Your task to perform on an android device: change your default location settings in chrome Image 0: 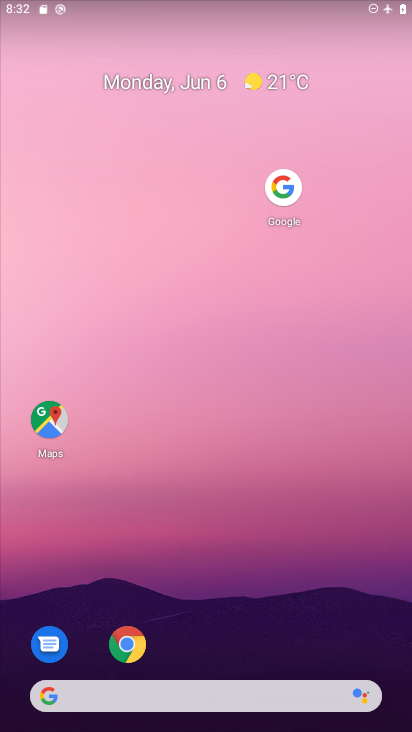
Step 0: click (125, 650)
Your task to perform on an android device: change your default location settings in chrome Image 1: 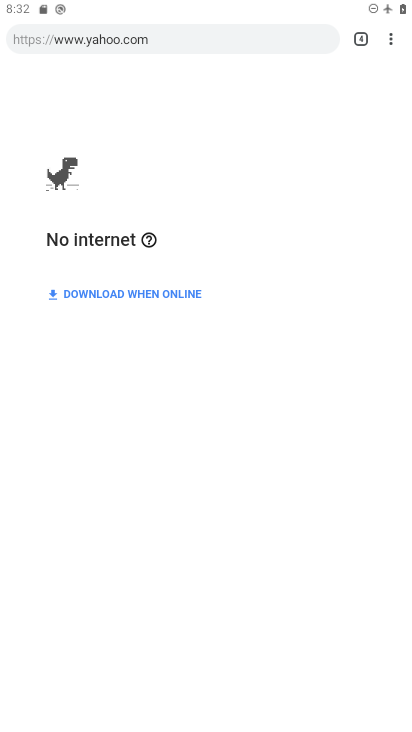
Step 1: click (390, 40)
Your task to perform on an android device: change your default location settings in chrome Image 2: 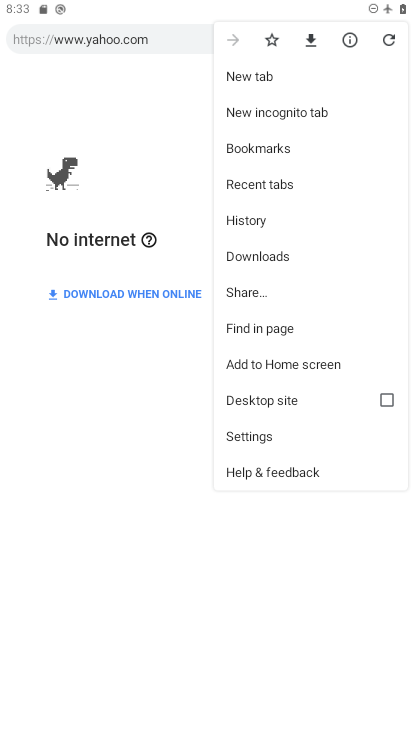
Step 2: click (259, 433)
Your task to perform on an android device: change your default location settings in chrome Image 3: 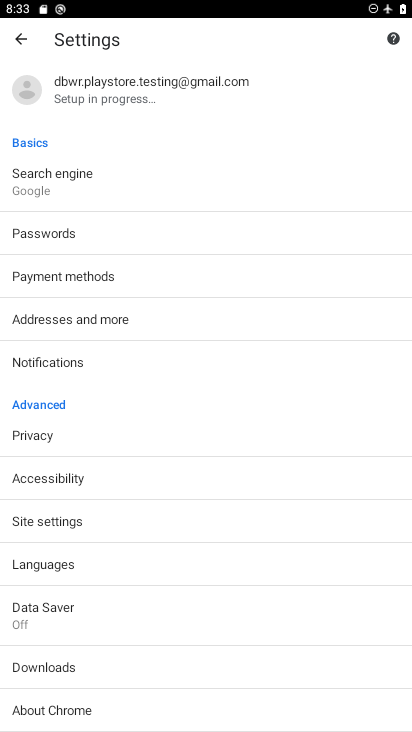
Step 3: click (54, 527)
Your task to perform on an android device: change your default location settings in chrome Image 4: 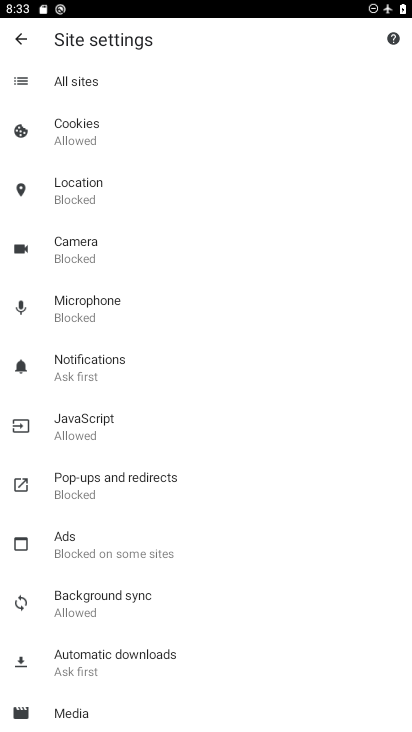
Step 4: click (120, 195)
Your task to perform on an android device: change your default location settings in chrome Image 5: 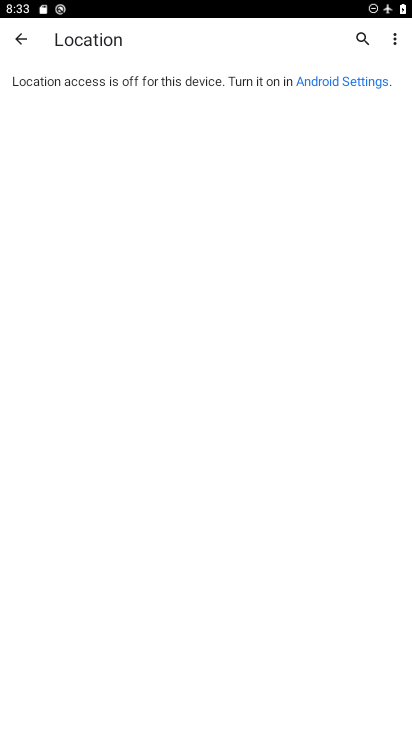
Step 5: task complete